Your task to perform on an android device: Go to network settings Image 0: 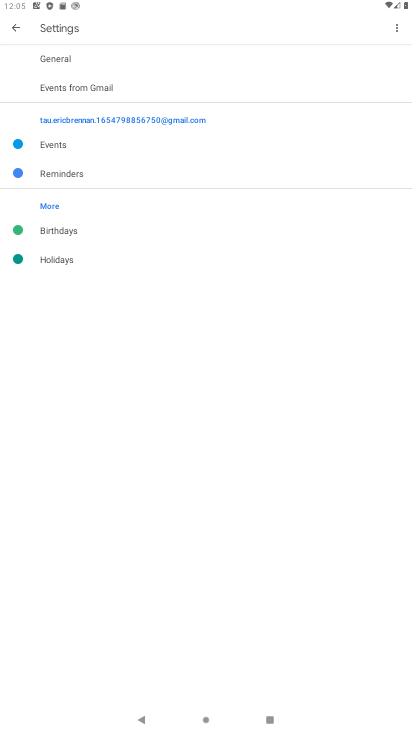
Step 0: press home button
Your task to perform on an android device: Go to network settings Image 1: 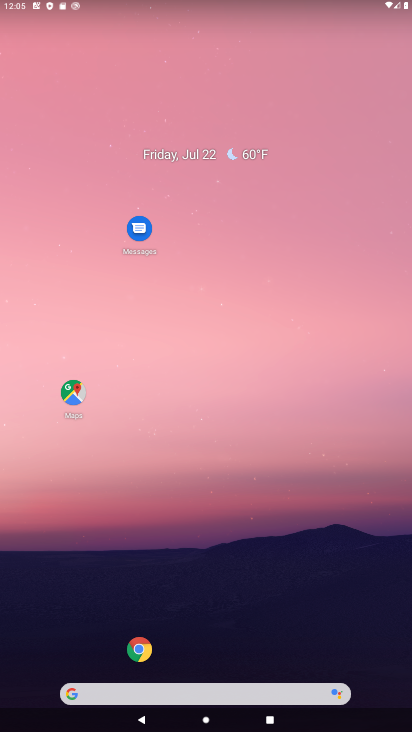
Step 1: drag from (52, 670) to (133, 128)
Your task to perform on an android device: Go to network settings Image 2: 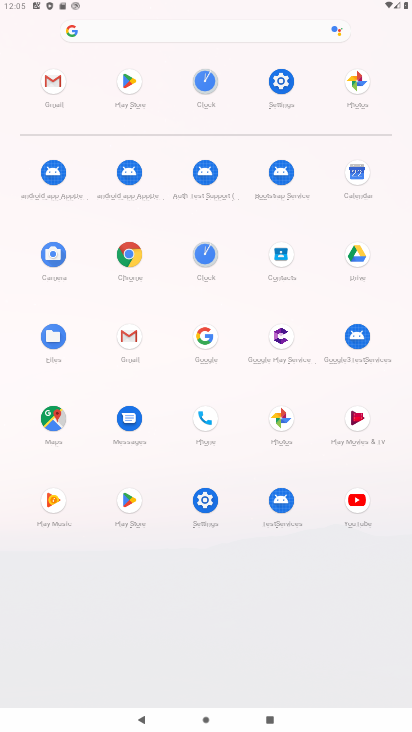
Step 2: click (215, 509)
Your task to perform on an android device: Go to network settings Image 3: 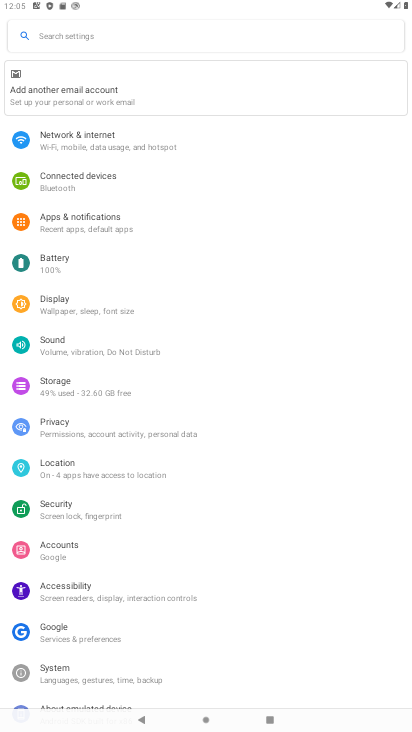
Step 3: click (42, 139)
Your task to perform on an android device: Go to network settings Image 4: 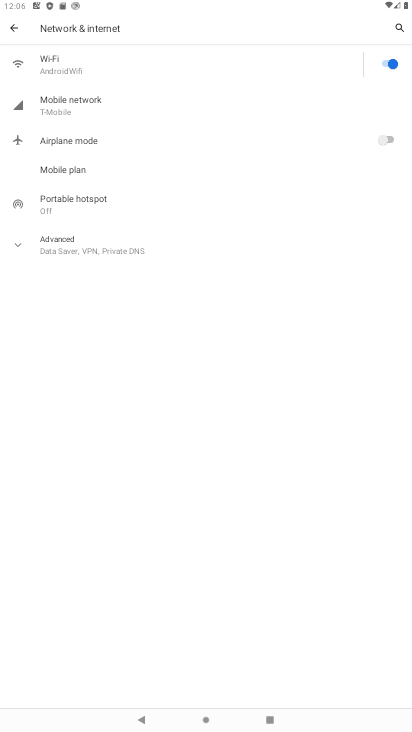
Step 4: task complete